Your task to perform on an android device: Open calendar and show me the first week of next month Image 0: 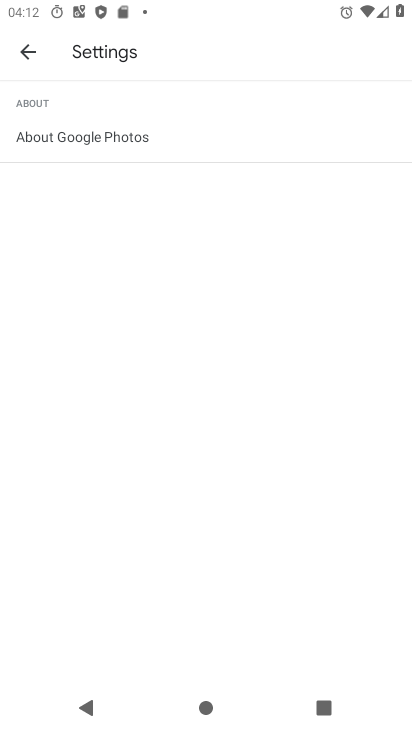
Step 0: press home button
Your task to perform on an android device: Open calendar and show me the first week of next month Image 1: 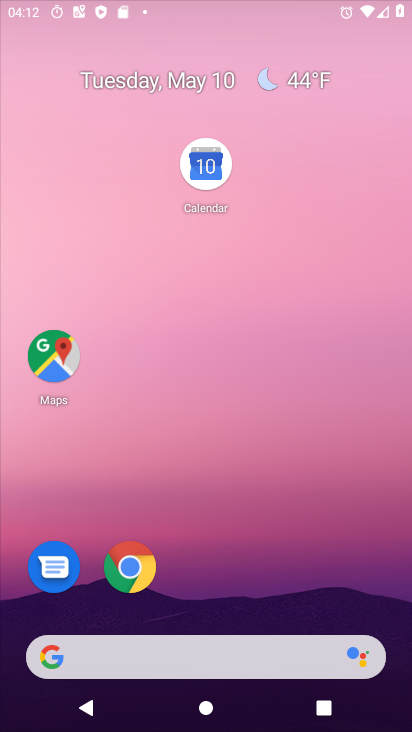
Step 1: drag from (238, 575) to (284, 100)
Your task to perform on an android device: Open calendar and show me the first week of next month Image 2: 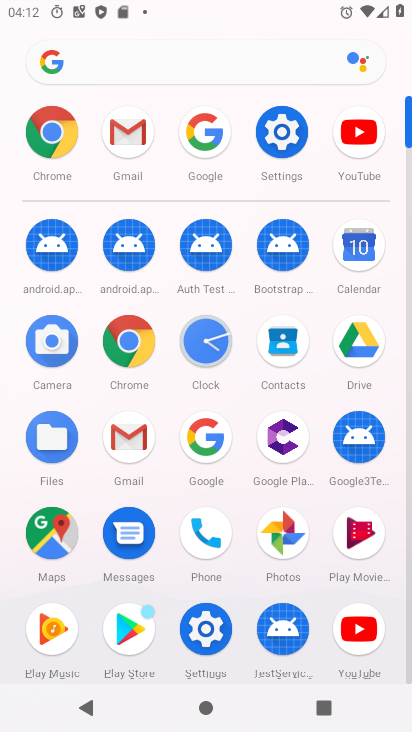
Step 2: click (356, 249)
Your task to perform on an android device: Open calendar and show me the first week of next month Image 3: 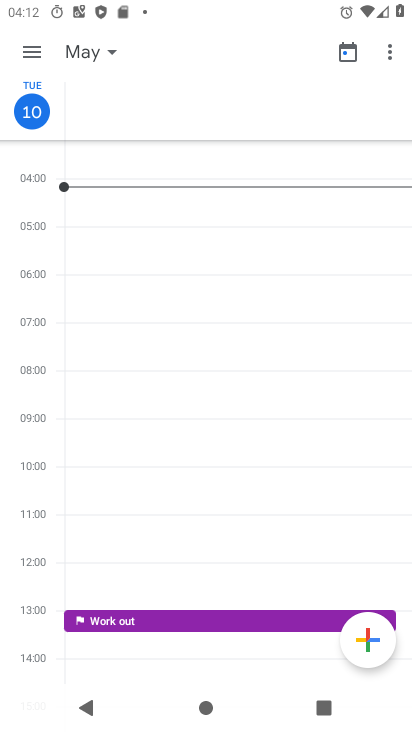
Step 3: click (96, 55)
Your task to perform on an android device: Open calendar and show me the first week of next month Image 4: 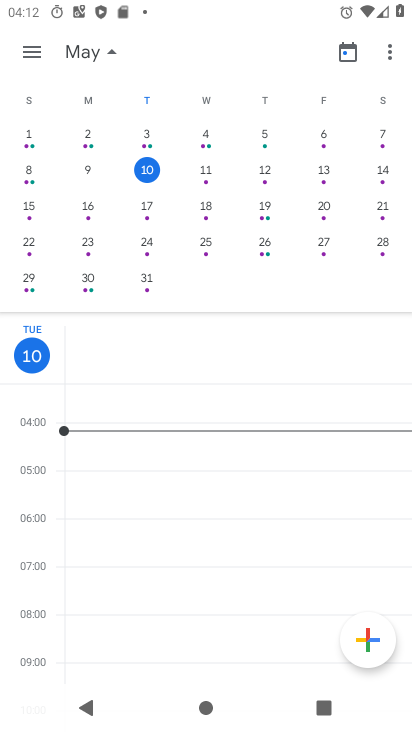
Step 4: drag from (364, 274) to (7, 263)
Your task to perform on an android device: Open calendar and show me the first week of next month Image 5: 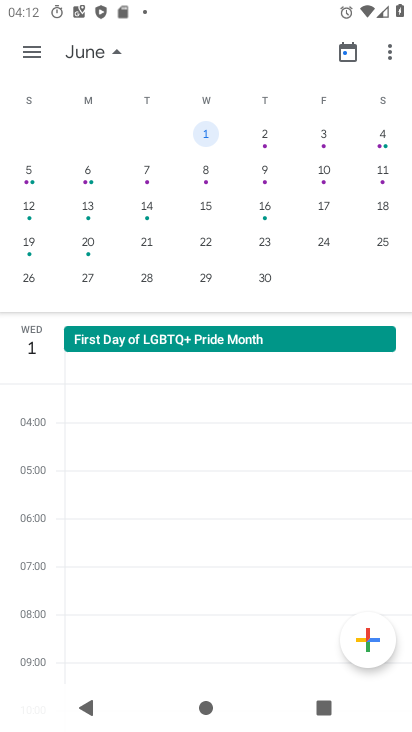
Step 5: click (270, 135)
Your task to perform on an android device: Open calendar and show me the first week of next month Image 6: 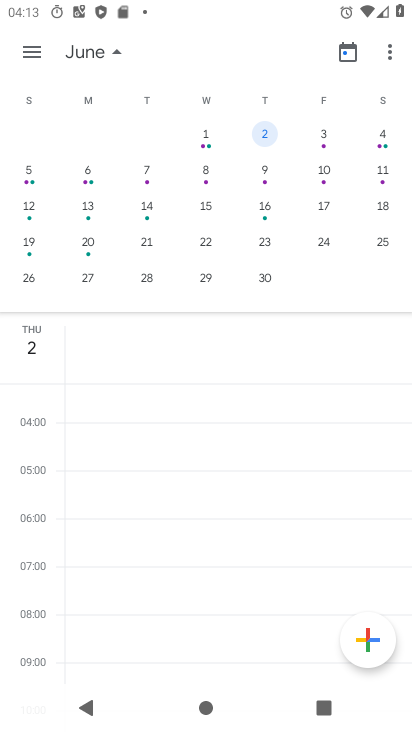
Step 6: task complete